Your task to perform on an android device: turn off translation in the chrome app Image 0: 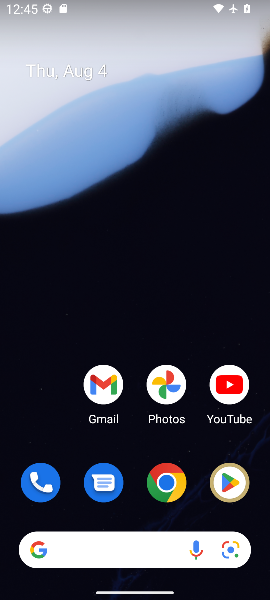
Step 0: click (174, 482)
Your task to perform on an android device: turn off translation in the chrome app Image 1: 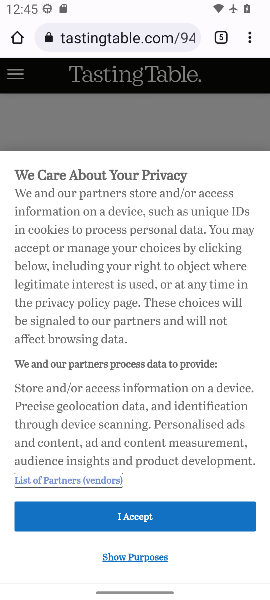
Step 1: click (247, 43)
Your task to perform on an android device: turn off translation in the chrome app Image 2: 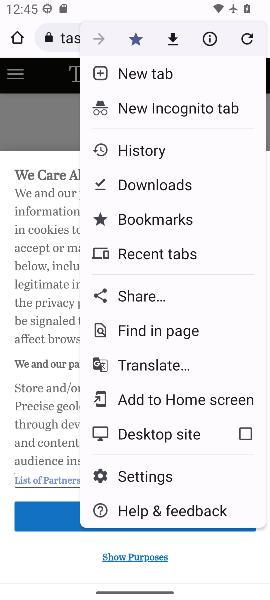
Step 2: click (151, 478)
Your task to perform on an android device: turn off translation in the chrome app Image 3: 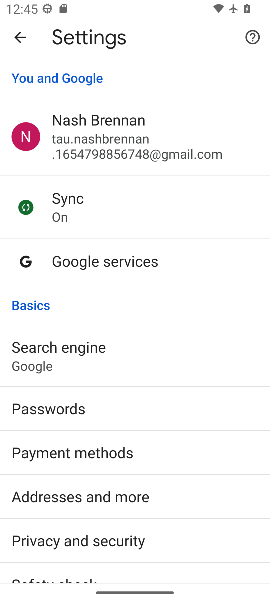
Step 3: drag from (127, 519) to (142, 331)
Your task to perform on an android device: turn off translation in the chrome app Image 4: 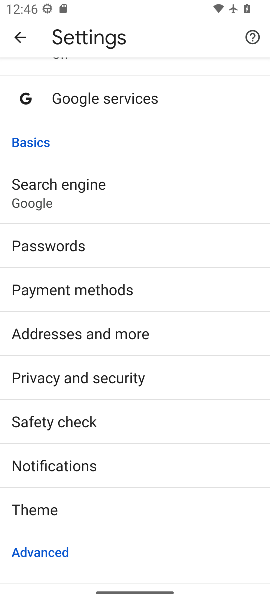
Step 4: drag from (110, 507) to (144, 259)
Your task to perform on an android device: turn off translation in the chrome app Image 5: 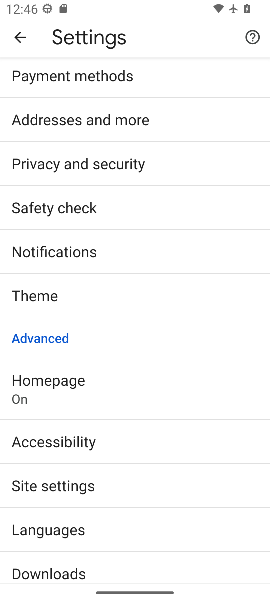
Step 5: click (103, 527)
Your task to perform on an android device: turn off translation in the chrome app Image 6: 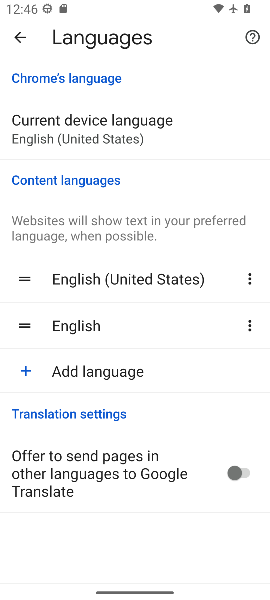
Step 6: task complete